Your task to perform on an android device: Search for seafood restaurants on Google Maps Image 0: 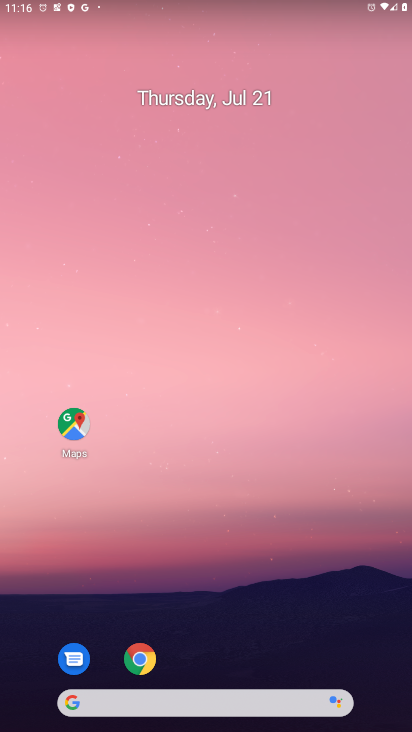
Step 0: click (72, 425)
Your task to perform on an android device: Search for seafood restaurants on Google Maps Image 1: 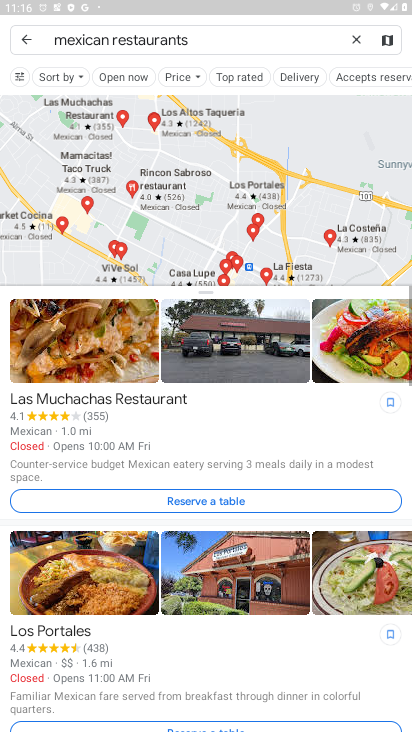
Step 1: click (357, 40)
Your task to perform on an android device: Search for seafood restaurants on Google Maps Image 2: 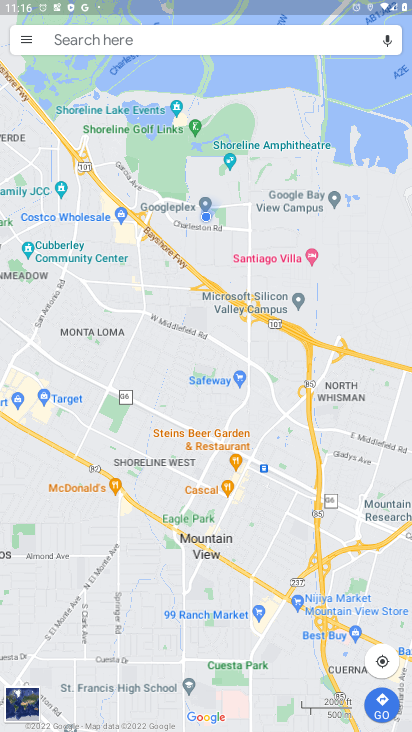
Step 2: click (263, 42)
Your task to perform on an android device: Search for seafood restaurants on Google Maps Image 3: 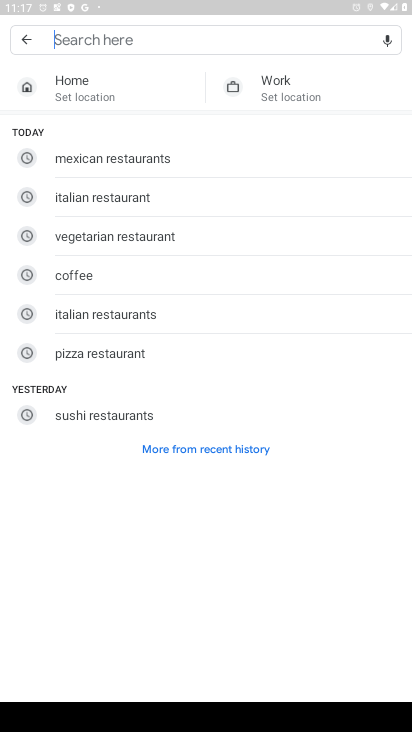
Step 3: type "seafood restaurants"
Your task to perform on an android device: Search for seafood restaurants on Google Maps Image 4: 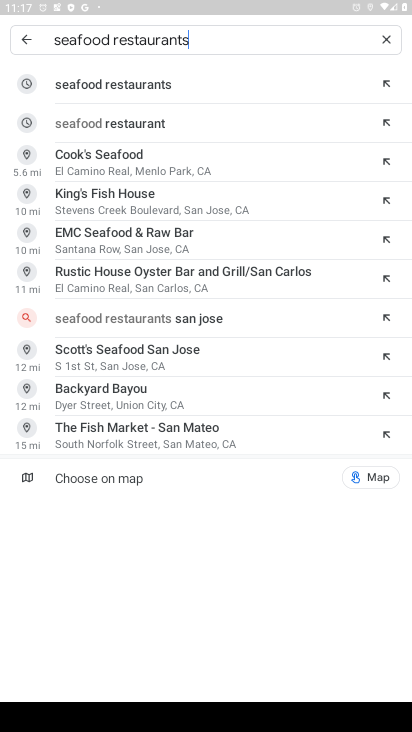
Step 4: click (127, 85)
Your task to perform on an android device: Search for seafood restaurants on Google Maps Image 5: 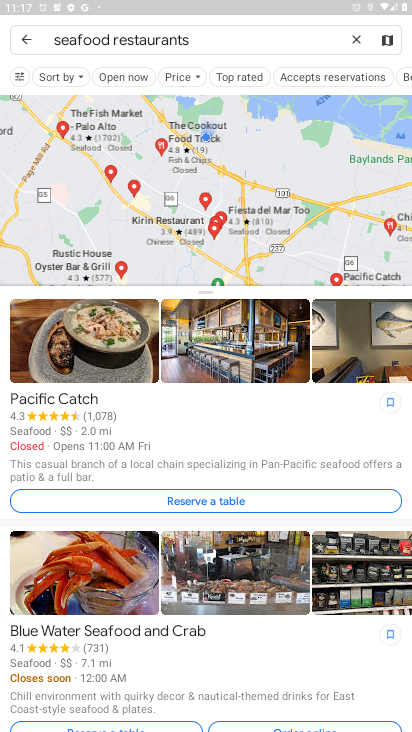
Step 5: task complete